Your task to perform on an android device: see tabs open on other devices in the chrome app Image 0: 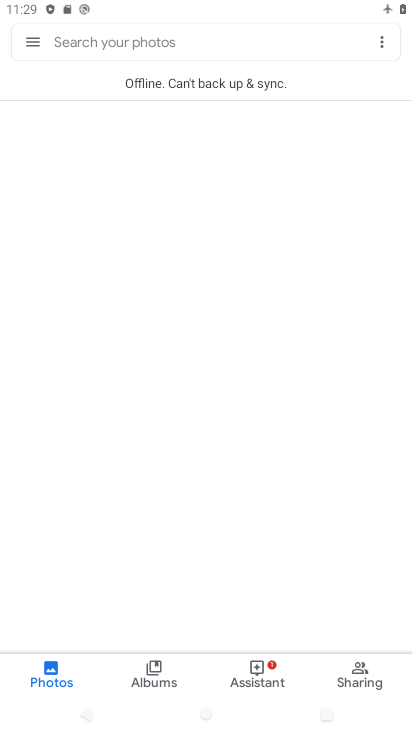
Step 0: drag from (189, 619) to (328, 251)
Your task to perform on an android device: see tabs open on other devices in the chrome app Image 1: 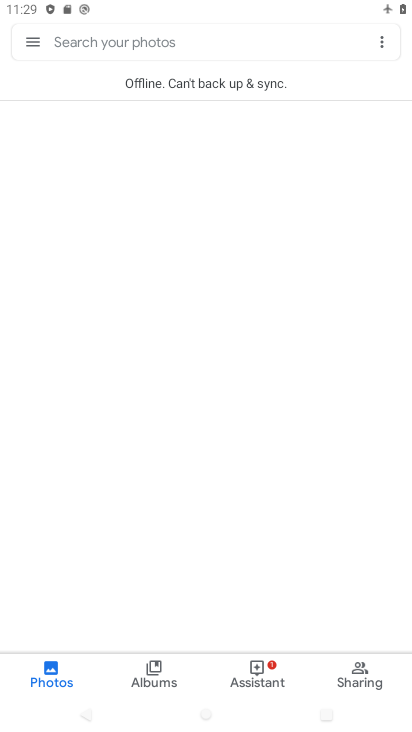
Step 1: drag from (215, 606) to (227, 221)
Your task to perform on an android device: see tabs open on other devices in the chrome app Image 2: 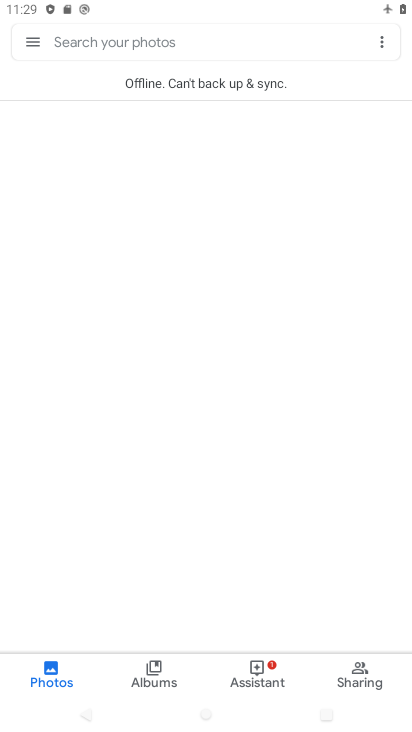
Step 2: press home button
Your task to perform on an android device: see tabs open on other devices in the chrome app Image 3: 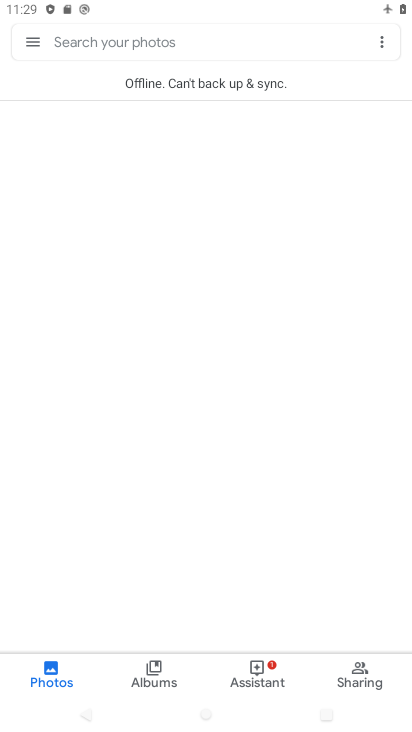
Step 3: press home button
Your task to perform on an android device: see tabs open on other devices in the chrome app Image 4: 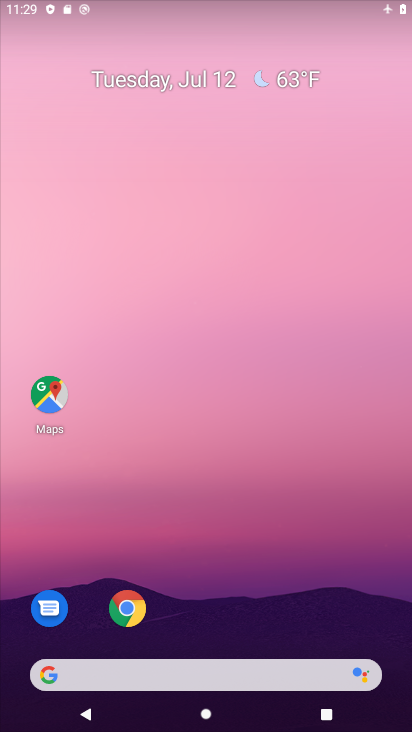
Step 4: drag from (180, 595) to (219, 109)
Your task to perform on an android device: see tabs open on other devices in the chrome app Image 5: 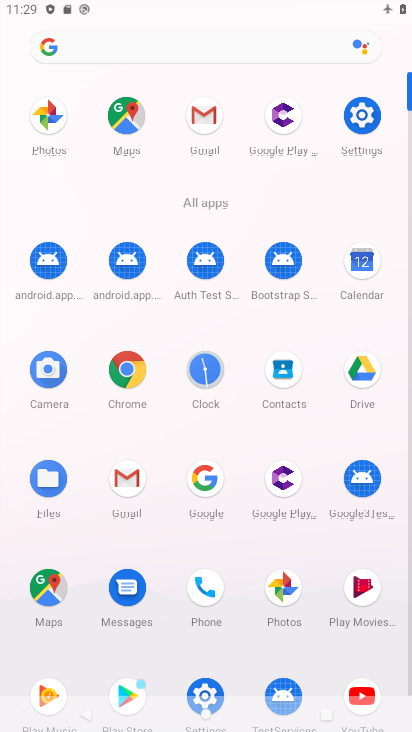
Step 5: click (114, 356)
Your task to perform on an android device: see tabs open on other devices in the chrome app Image 6: 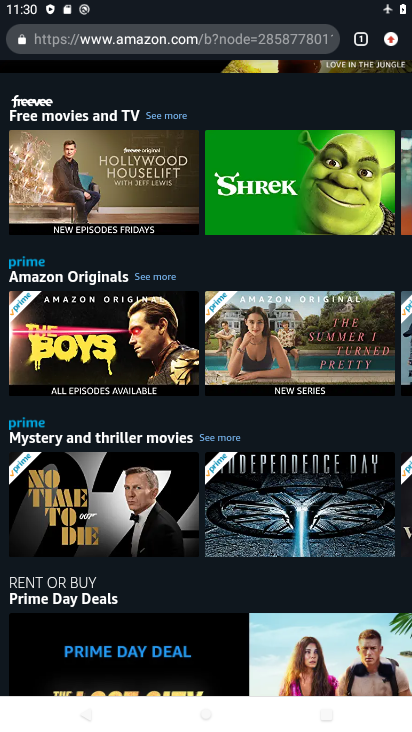
Step 6: click (386, 48)
Your task to perform on an android device: see tabs open on other devices in the chrome app Image 7: 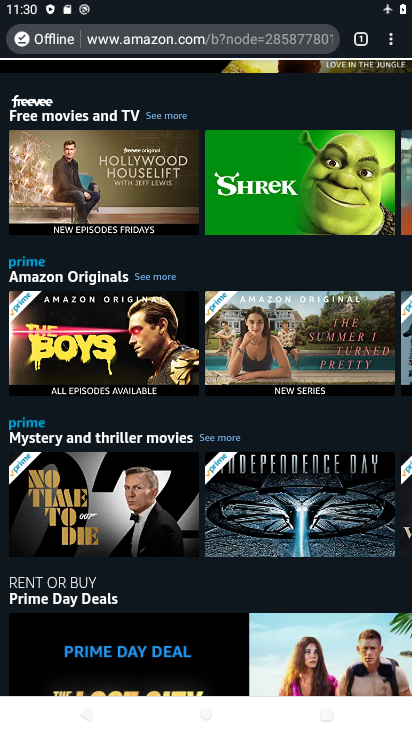
Step 7: task complete